Your task to perform on an android device: toggle notifications settings in the gmail app Image 0: 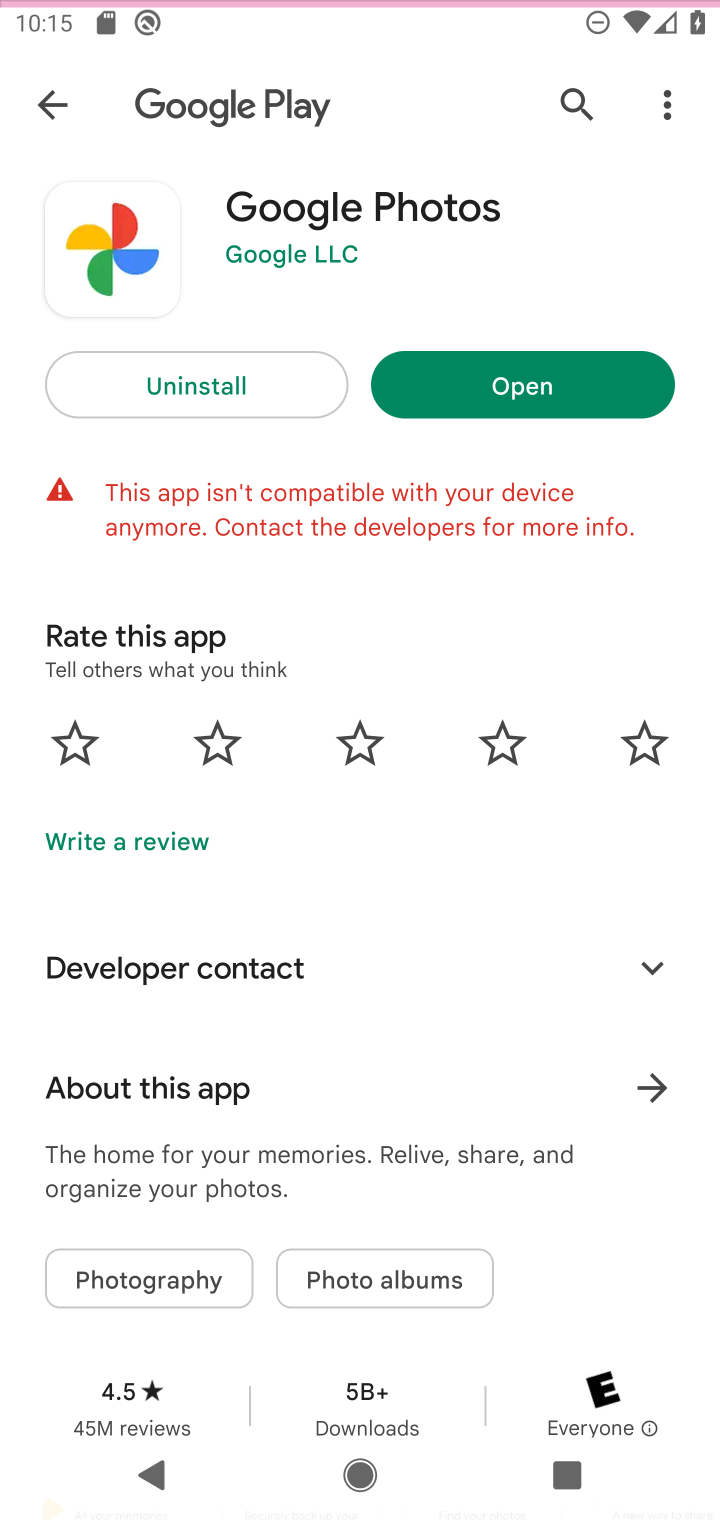
Step 0: press home button
Your task to perform on an android device: toggle notifications settings in the gmail app Image 1: 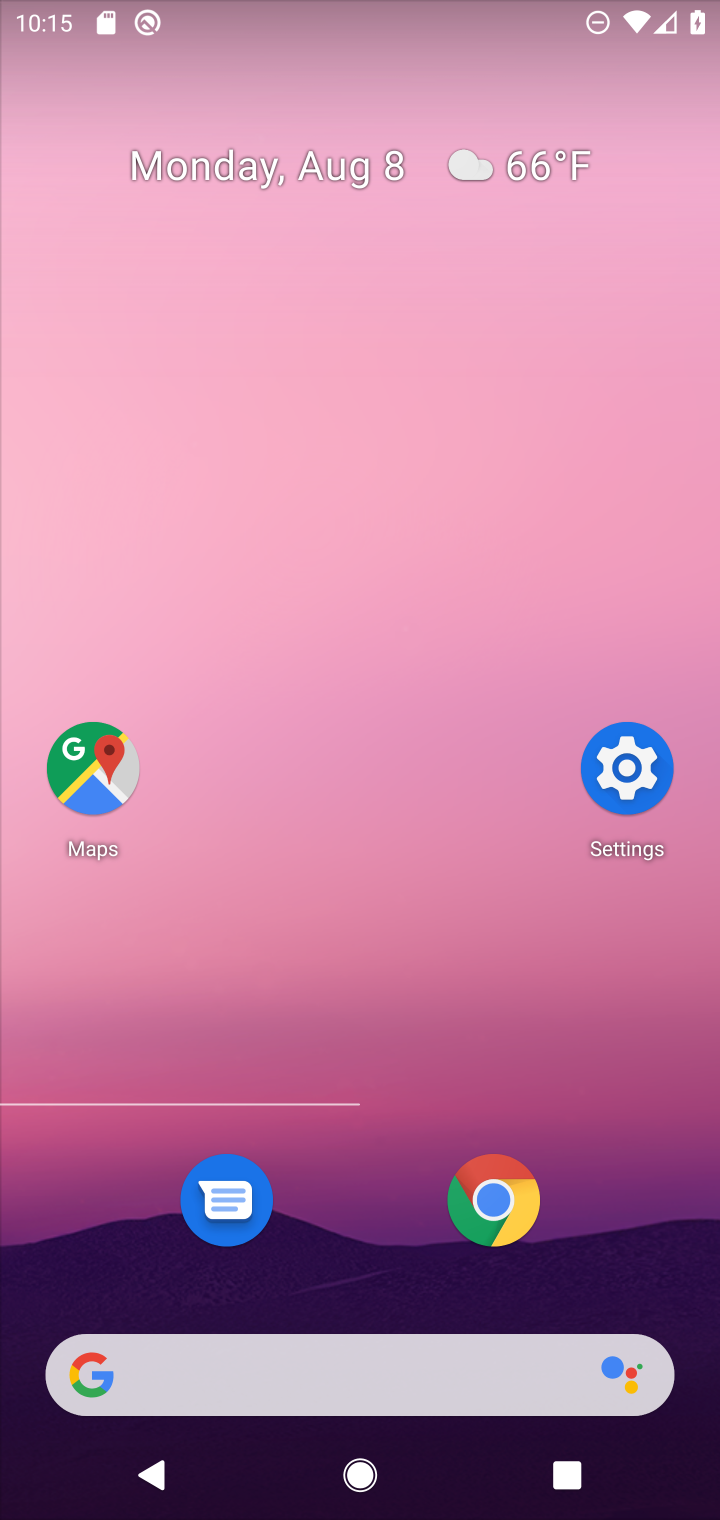
Step 1: drag from (342, 1380) to (643, 281)
Your task to perform on an android device: toggle notifications settings in the gmail app Image 2: 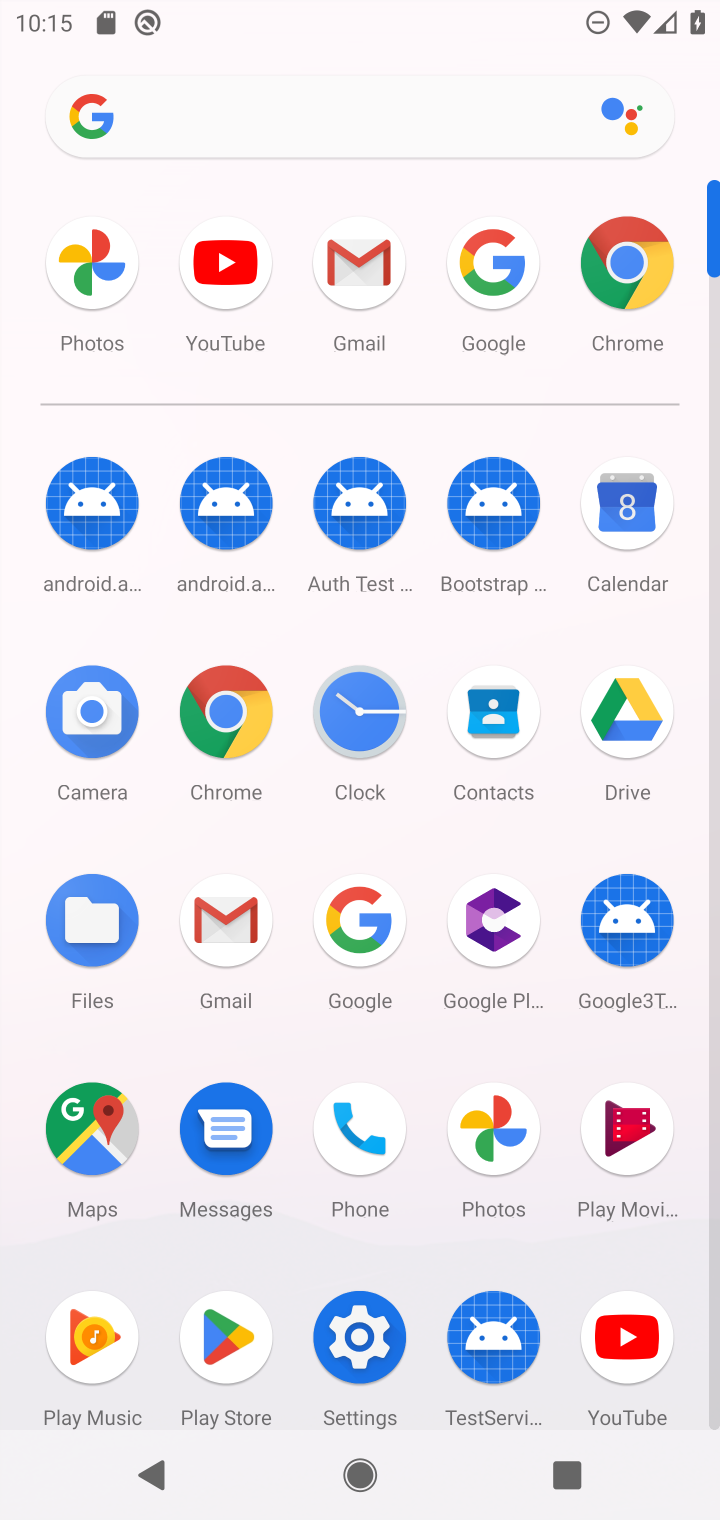
Step 2: click (229, 933)
Your task to perform on an android device: toggle notifications settings in the gmail app Image 3: 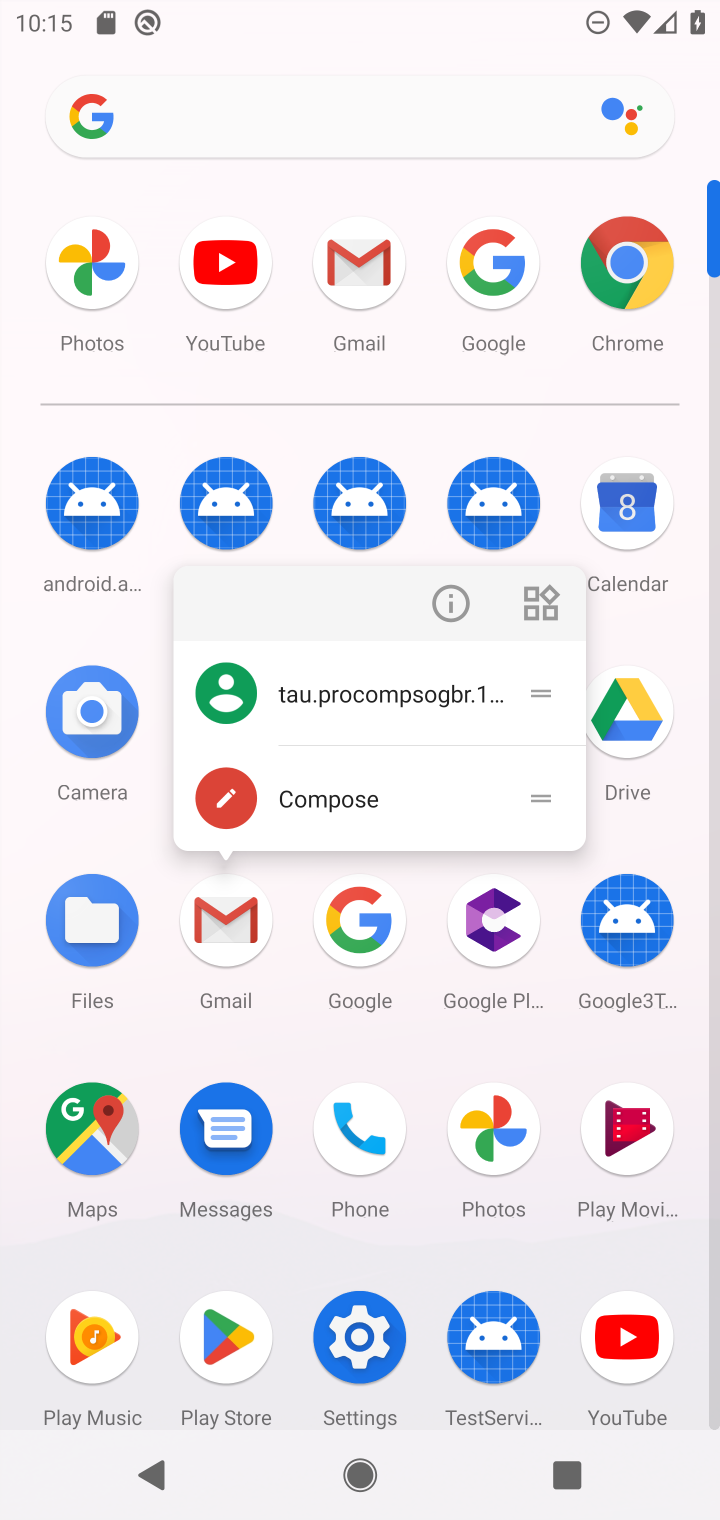
Step 3: click (220, 927)
Your task to perform on an android device: toggle notifications settings in the gmail app Image 4: 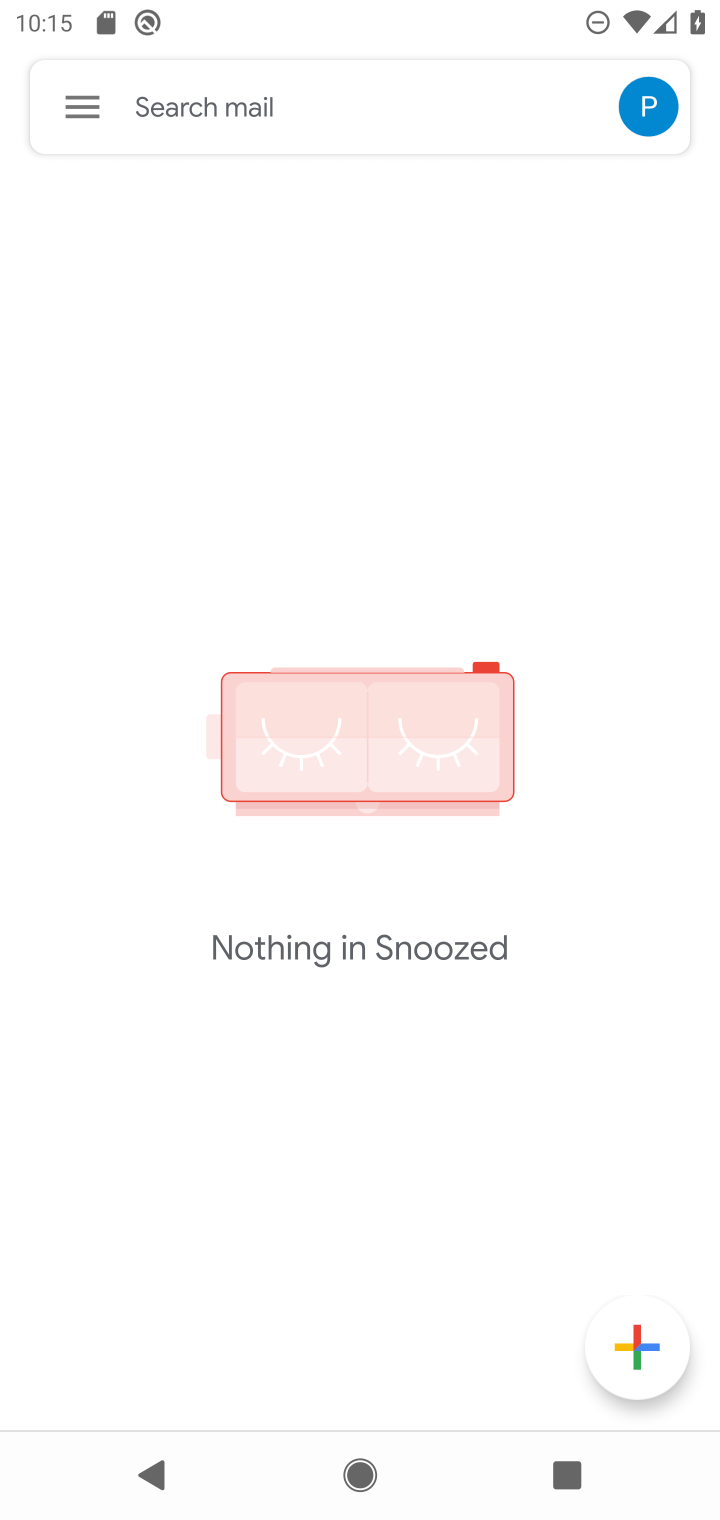
Step 4: click (78, 101)
Your task to perform on an android device: toggle notifications settings in the gmail app Image 5: 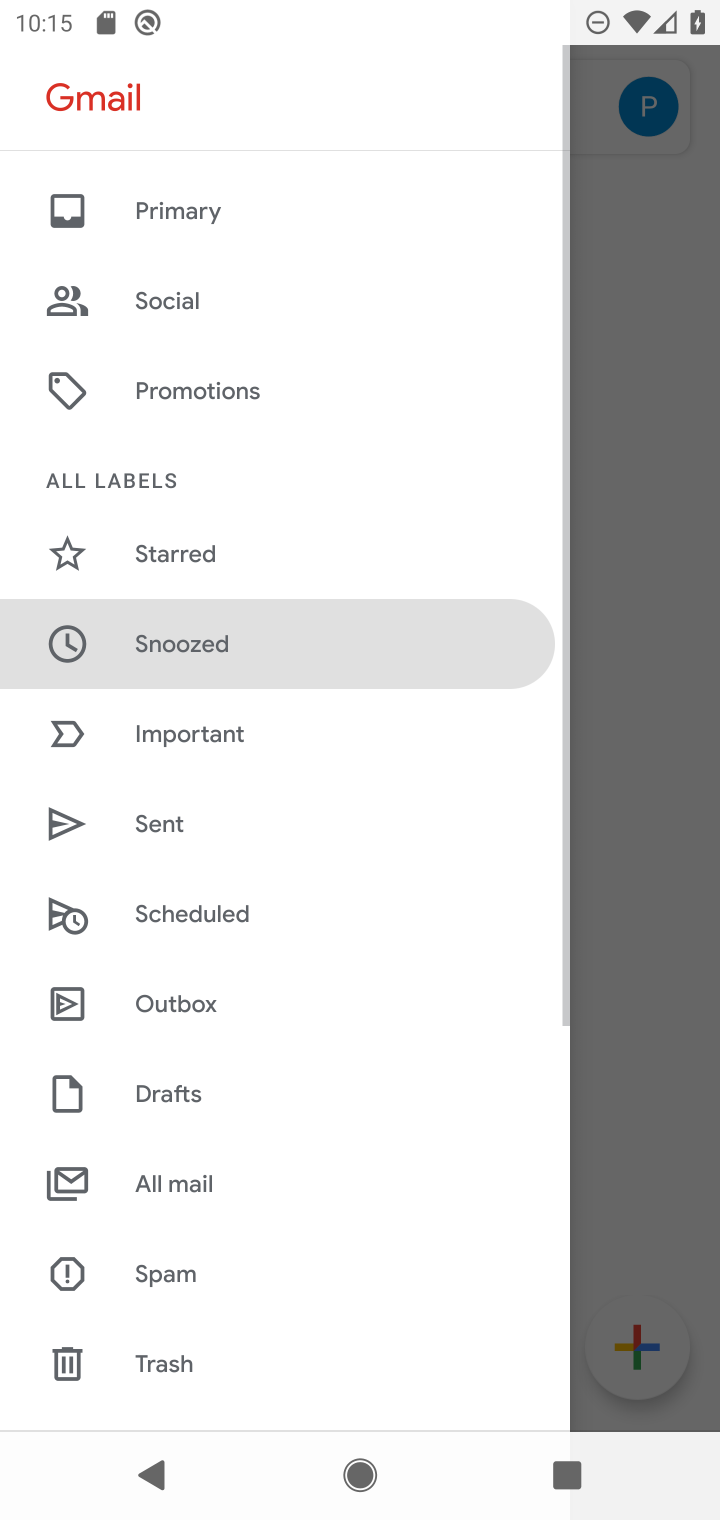
Step 5: drag from (287, 1359) to (487, 102)
Your task to perform on an android device: toggle notifications settings in the gmail app Image 6: 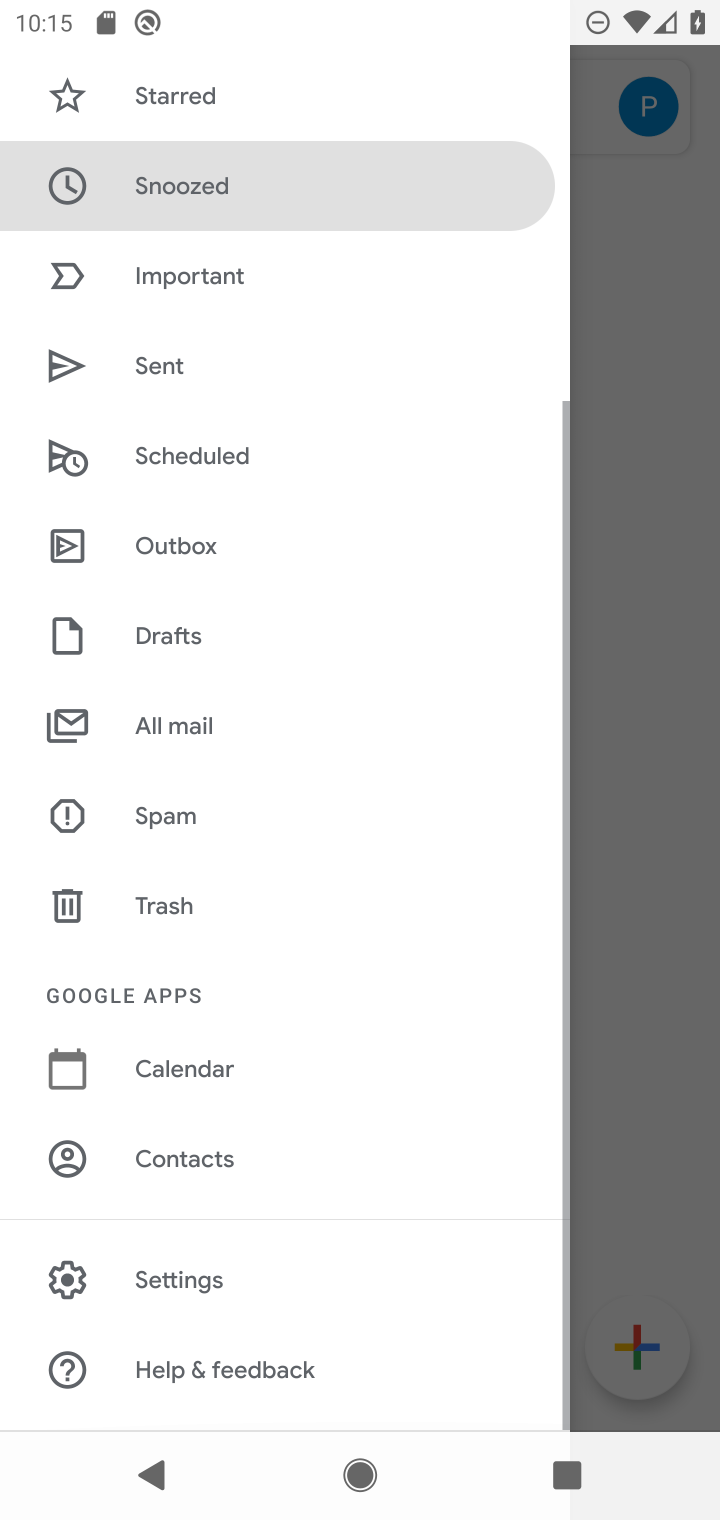
Step 6: click (184, 1271)
Your task to perform on an android device: toggle notifications settings in the gmail app Image 7: 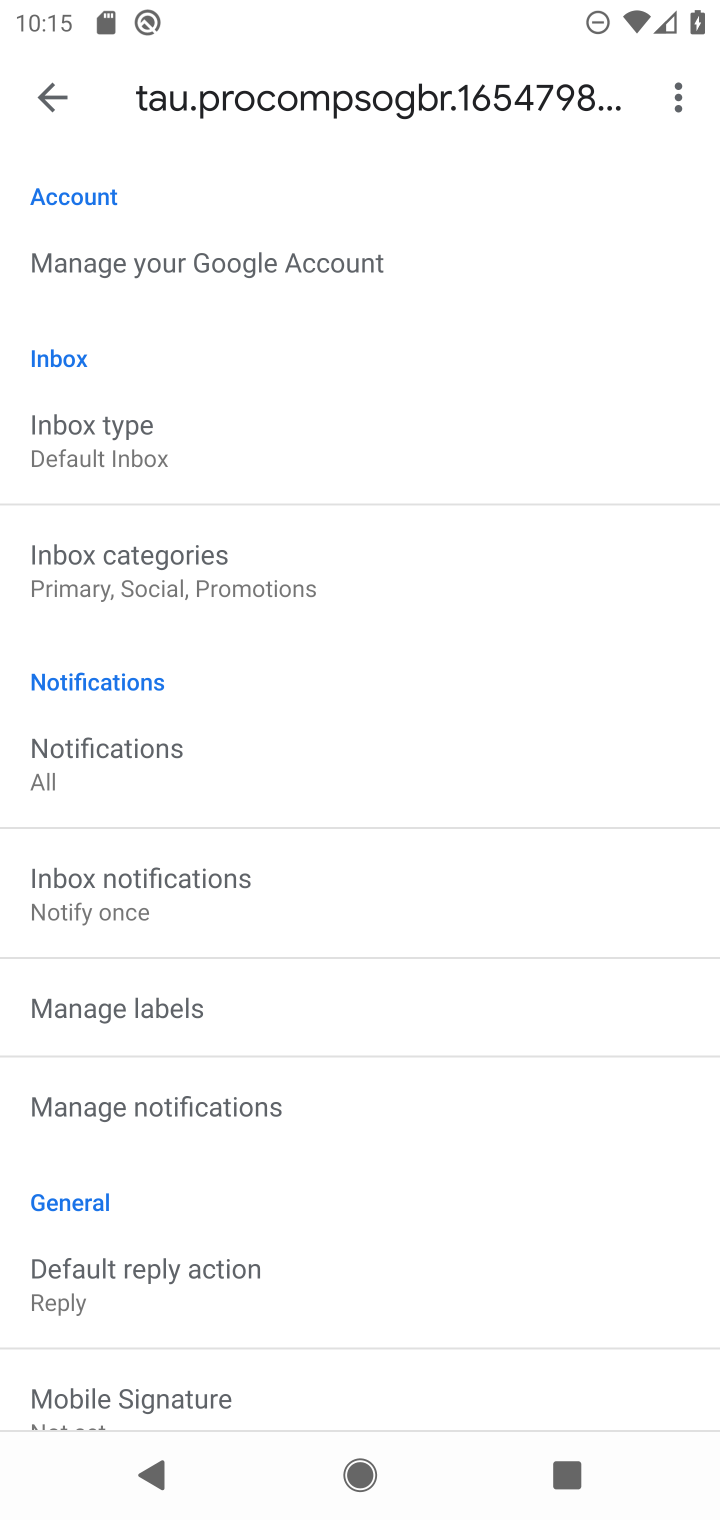
Step 7: click (60, 772)
Your task to perform on an android device: toggle notifications settings in the gmail app Image 8: 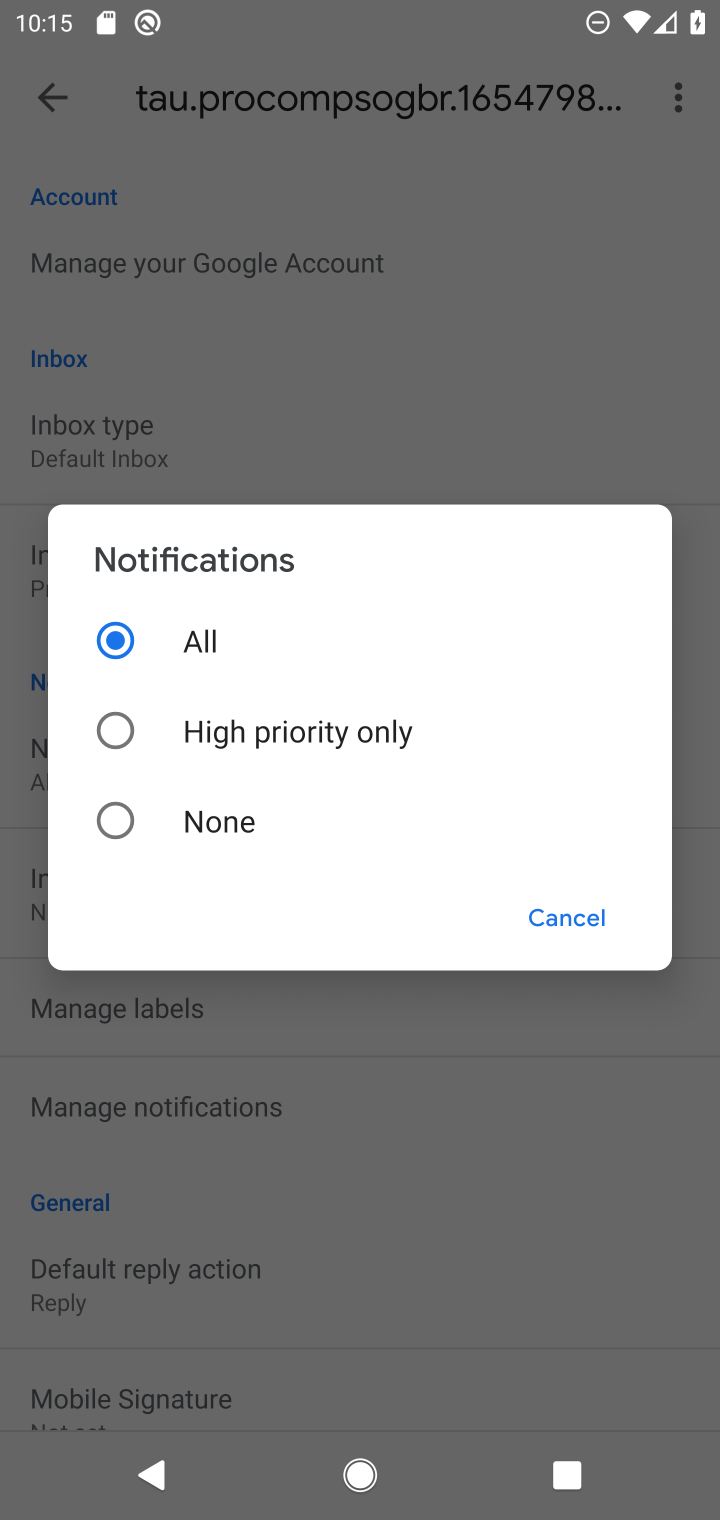
Step 8: click (118, 821)
Your task to perform on an android device: toggle notifications settings in the gmail app Image 9: 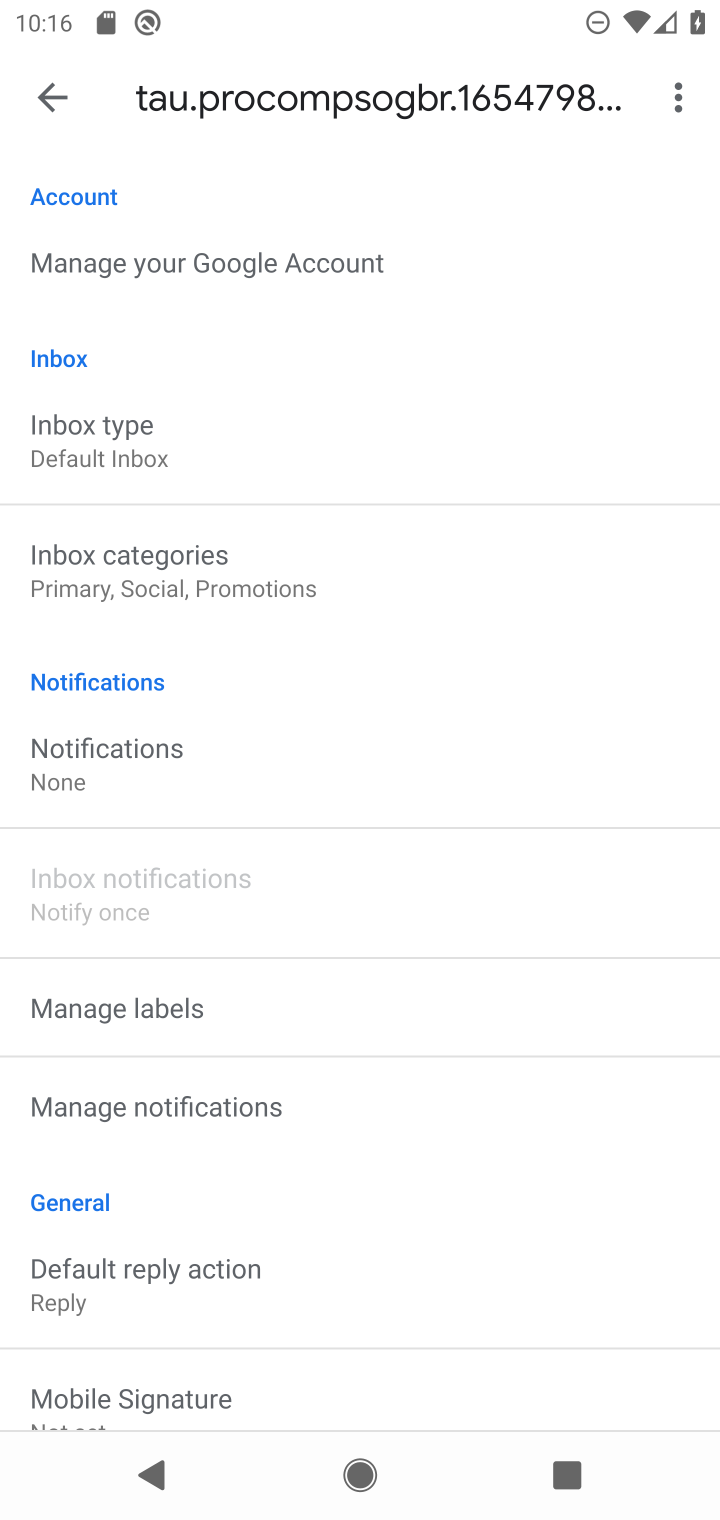
Step 9: task complete